Your task to perform on an android device: check the backup settings in the google photos Image 0: 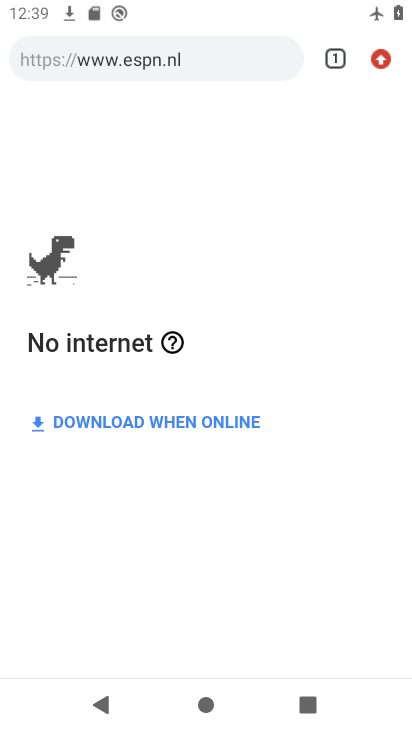
Step 0: press home button
Your task to perform on an android device: check the backup settings in the google photos Image 1: 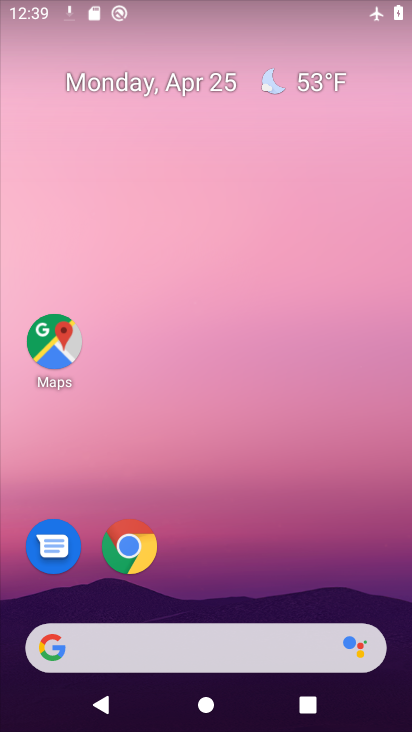
Step 1: drag from (233, 447) to (162, 130)
Your task to perform on an android device: check the backup settings in the google photos Image 2: 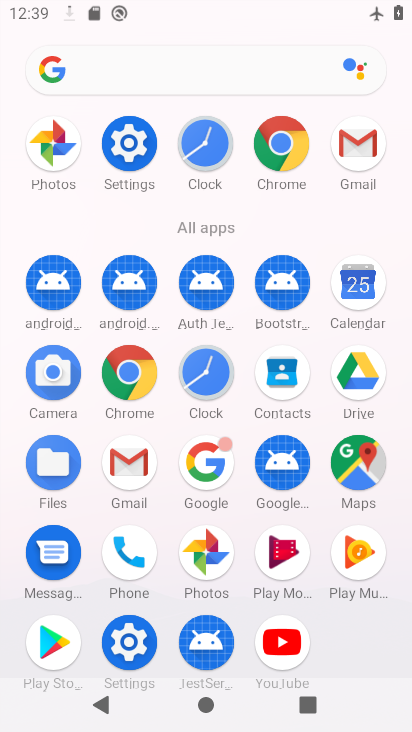
Step 2: click (207, 560)
Your task to perform on an android device: check the backup settings in the google photos Image 3: 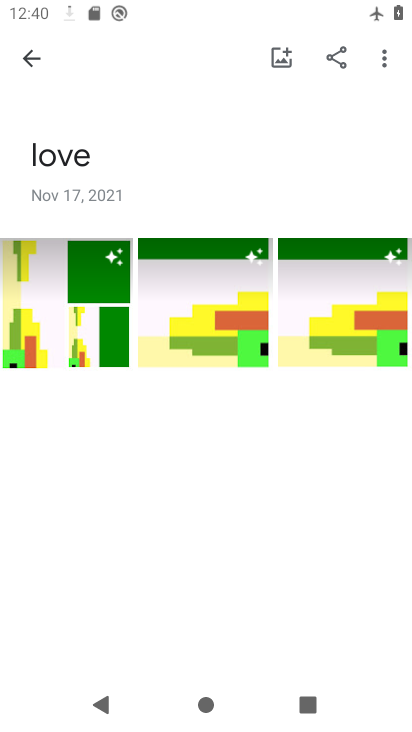
Step 3: click (33, 53)
Your task to perform on an android device: check the backup settings in the google photos Image 4: 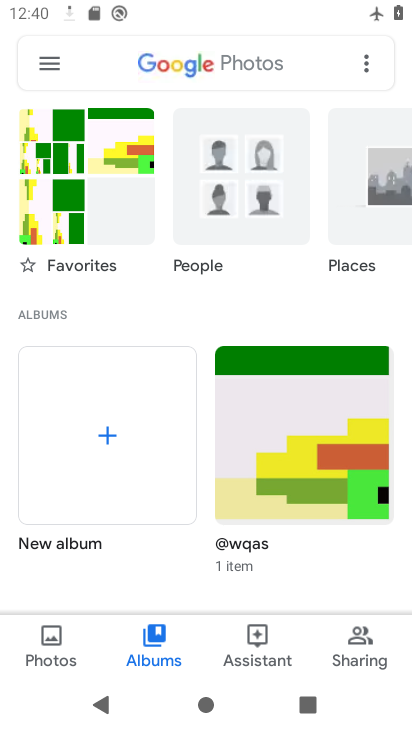
Step 4: click (54, 63)
Your task to perform on an android device: check the backup settings in the google photos Image 5: 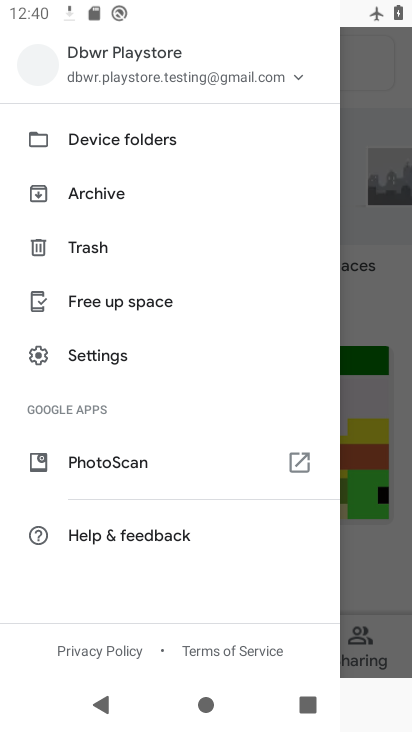
Step 5: click (122, 356)
Your task to perform on an android device: check the backup settings in the google photos Image 6: 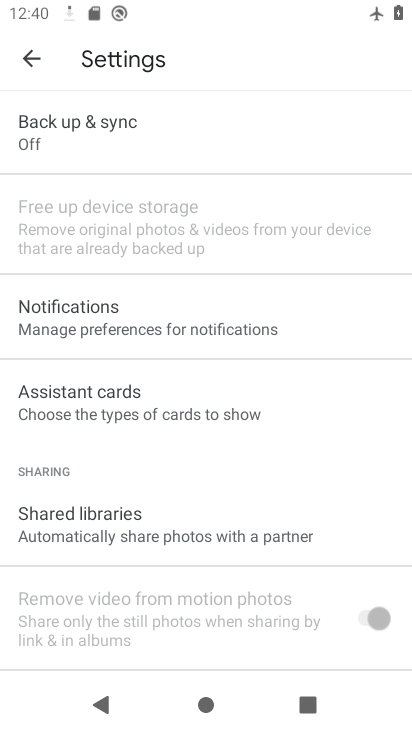
Step 6: click (28, 135)
Your task to perform on an android device: check the backup settings in the google photos Image 7: 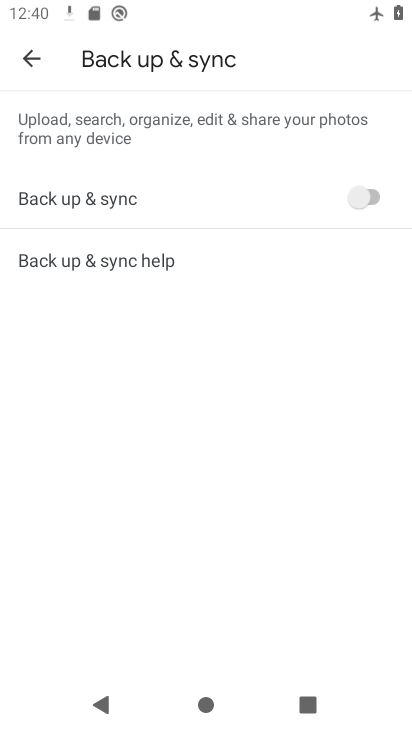
Step 7: task complete